Your task to perform on an android device: Open Google Chrome and click the shortcut for Amazon.com Image 0: 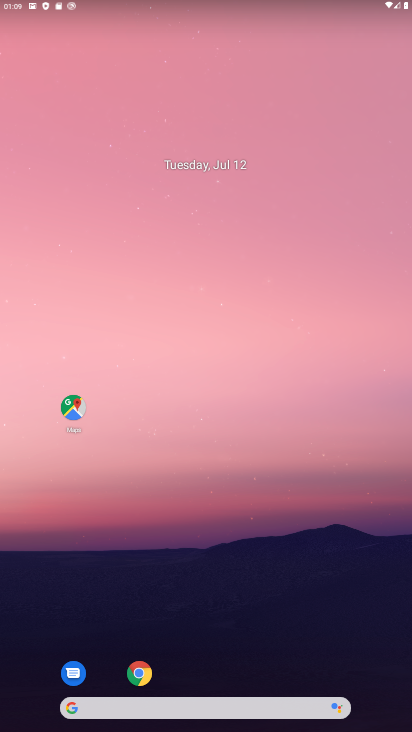
Step 0: press home button
Your task to perform on an android device: Open Google Chrome and click the shortcut for Amazon.com Image 1: 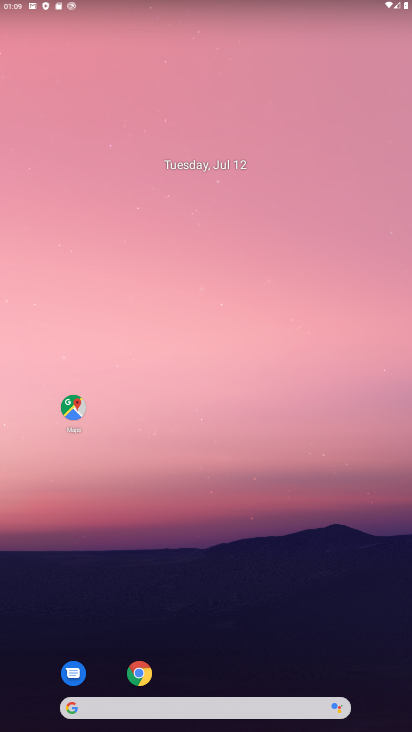
Step 1: drag from (262, 619) to (238, 3)
Your task to perform on an android device: Open Google Chrome and click the shortcut for Amazon.com Image 2: 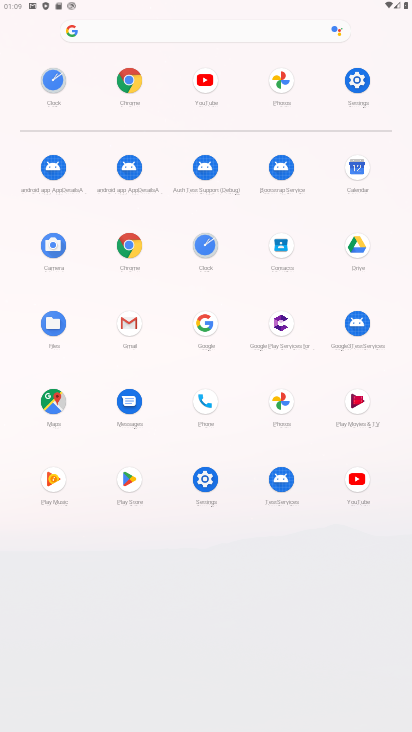
Step 2: click (131, 74)
Your task to perform on an android device: Open Google Chrome and click the shortcut for Amazon.com Image 3: 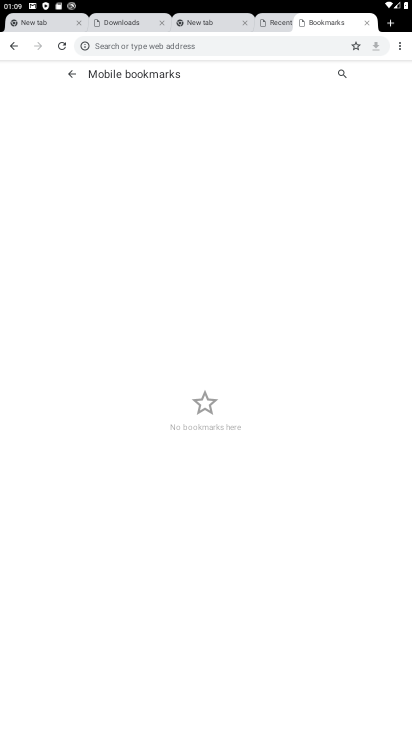
Step 3: click (399, 47)
Your task to perform on an android device: Open Google Chrome and click the shortcut for Amazon.com Image 4: 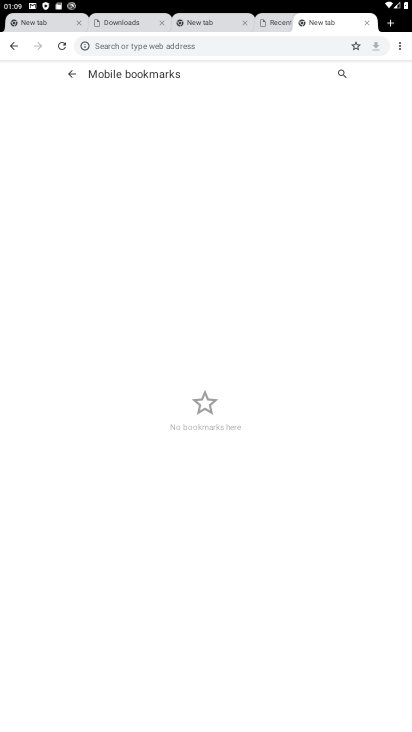
Step 4: click (389, 54)
Your task to perform on an android device: Open Google Chrome and click the shortcut for Amazon.com Image 5: 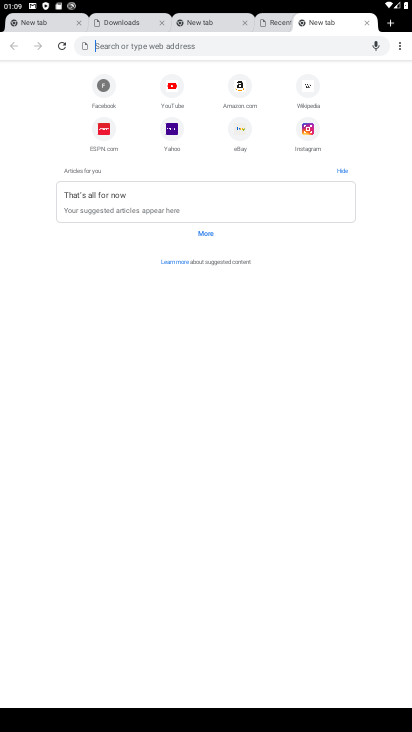
Step 5: click (236, 94)
Your task to perform on an android device: Open Google Chrome and click the shortcut for Amazon.com Image 6: 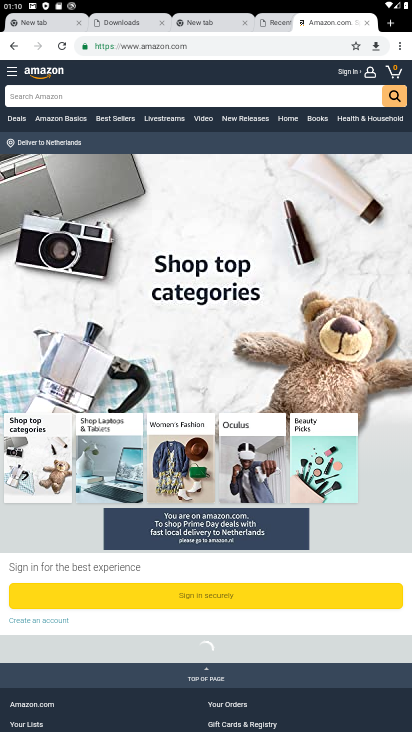
Step 6: task complete